Your task to perform on an android device: Go to eBay Image 0: 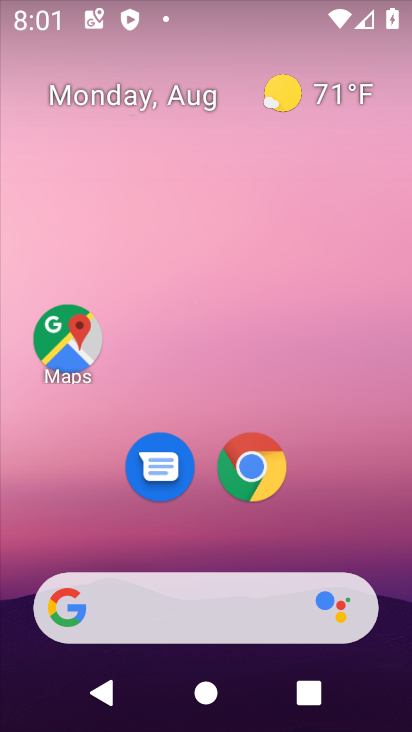
Step 0: press home button
Your task to perform on an android device: Go to eBay Image 1: 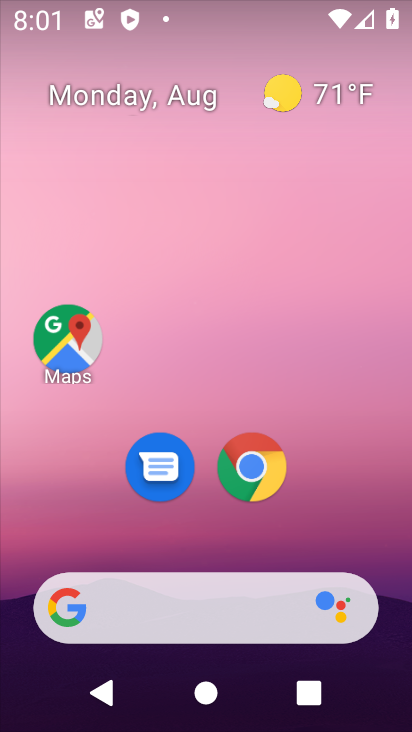
Step 1: drag from (345, 520) to (373, 189)
Your task to perform on an android device: Go to eBay Image 2: 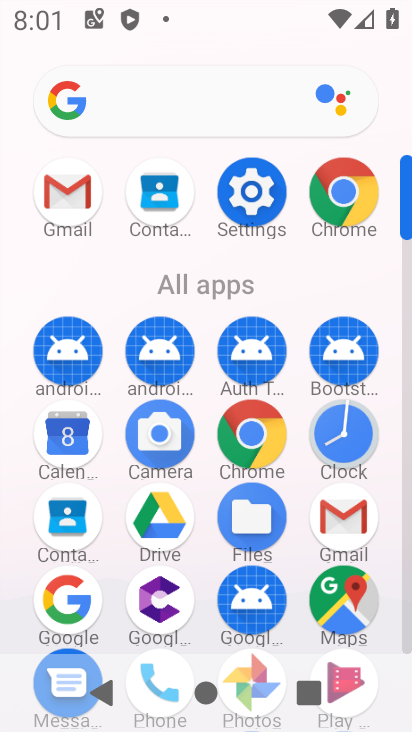
Step 2: click (344, 194)
Your task to perform on an android device: Go to eBay Image 3: 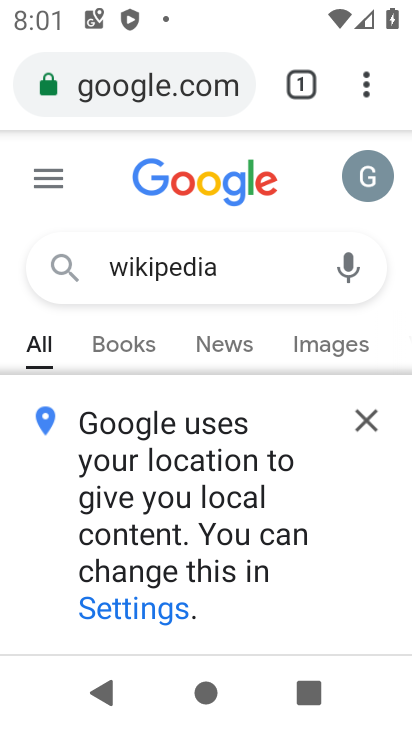
Step 3: click (222, 83)
Your task to perform on an android device: Go to eBay Image 4: 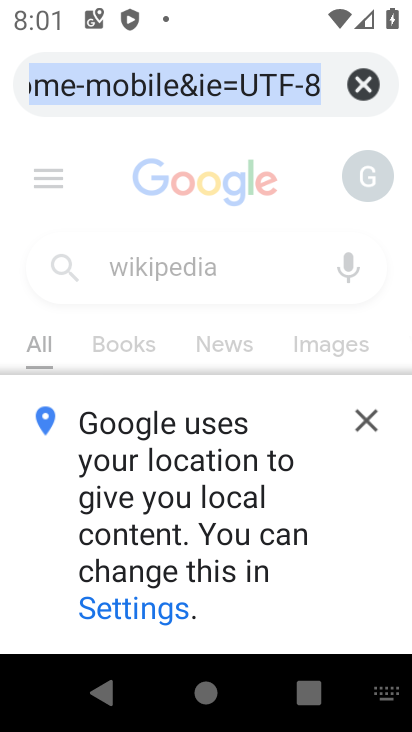
Step 4: type "ebay"
Your task to perform on an android device: Go to eBay Image 5: 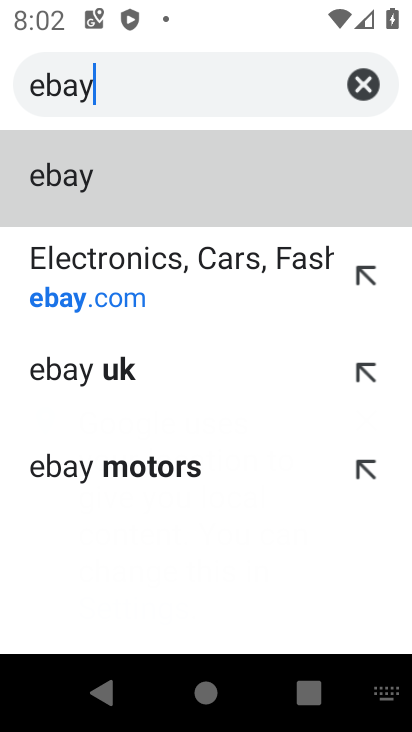
Step 5: click (373, 195)
Your task to perform on an android device: Go to eBay Image 6: 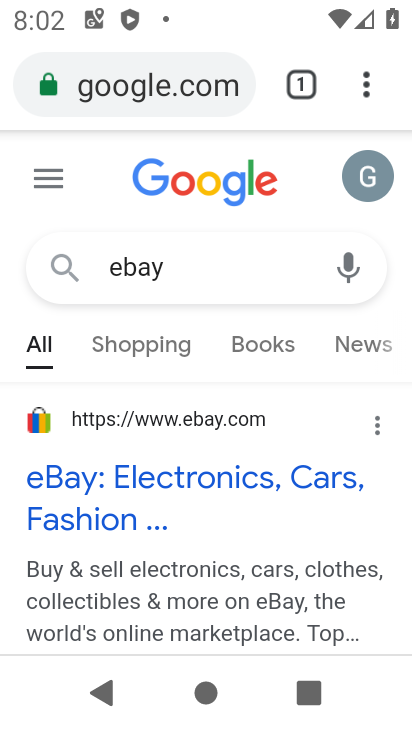
Step 6: task complete